Your task to perform on an android device: set an alarm Image 0: 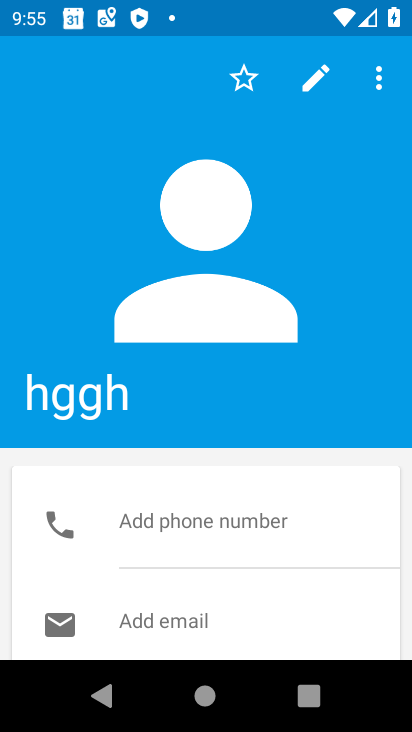
Step 0: press home button
Your task to perform on an android device: set an alarm Image 1: 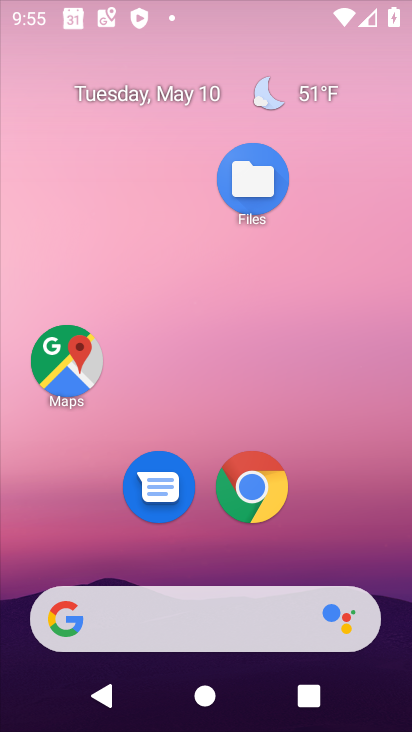
Step 1: drag from (236, 557) to (283, 62)
Your task to perform on an android device: set an alarm Image 2: 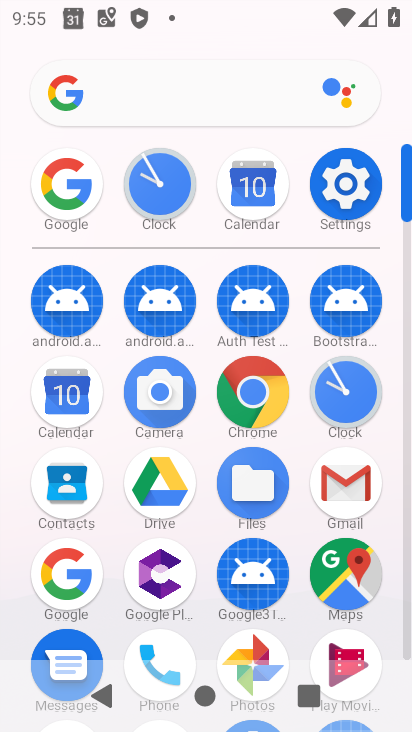
Step 2: click (341, 398)
Your task to perform on an android device: set an alarm Image 3: 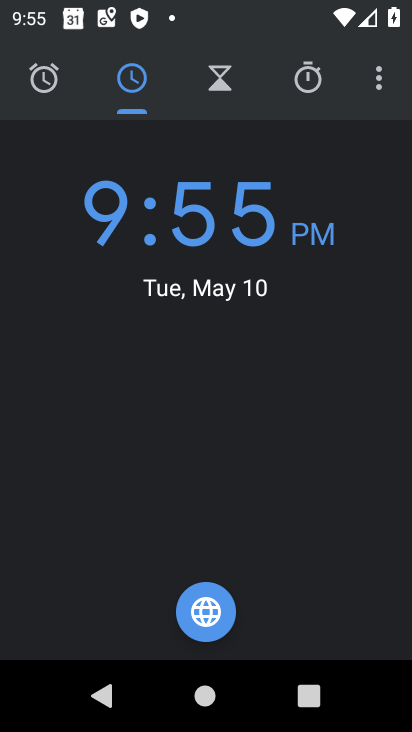
Step 3: click (58, 86)
Your task to perform on an android device: set an alarm Image 4: 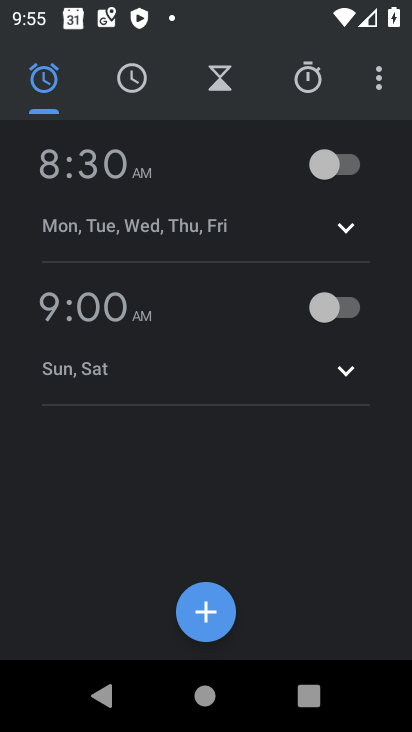
Step 4: click (342, 165)
Your task to perform on an android device: set an alarm Image 5: 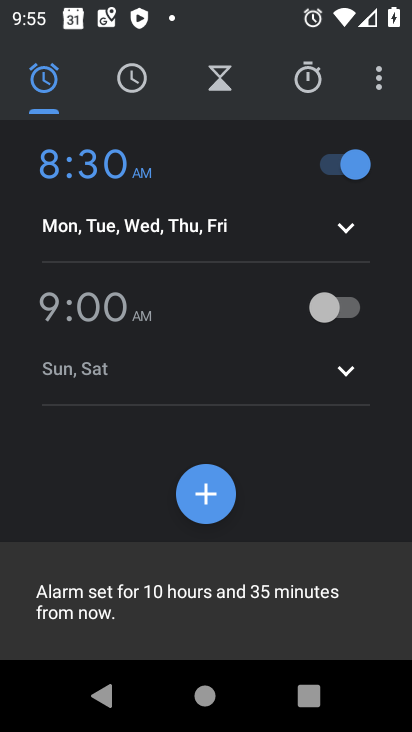
Step 5: task complete